Your task to perform on an android device: Go to Android settings Image 0: 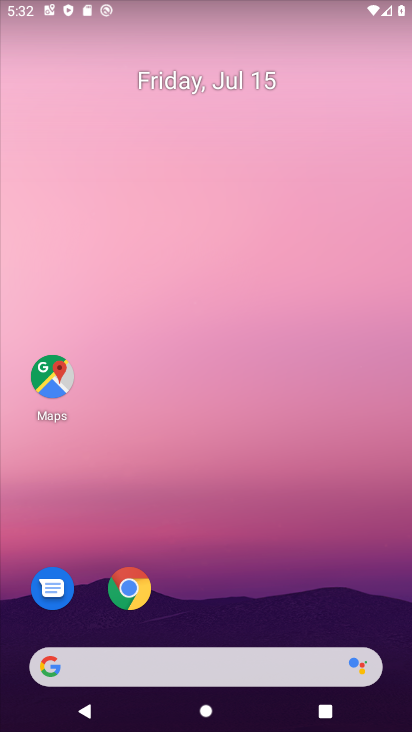
Step 0: drag from (325, 684) to (338, 57)
Your task to perform on an android device: Go to Android settings Image 1: 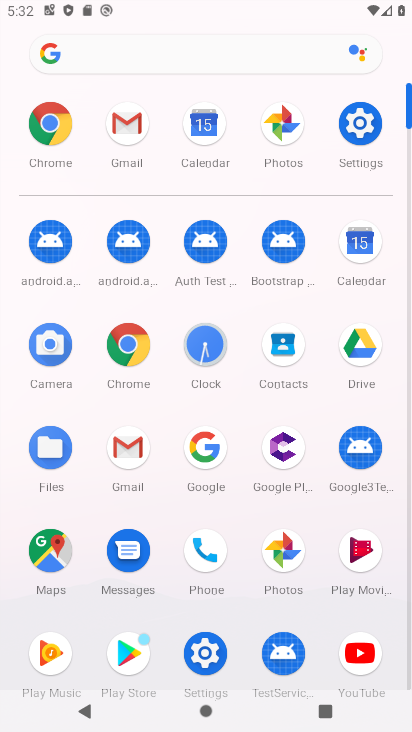
Step 1: click (345, 121)
Your task to perform on an android device: Go to Android settings Image 2: 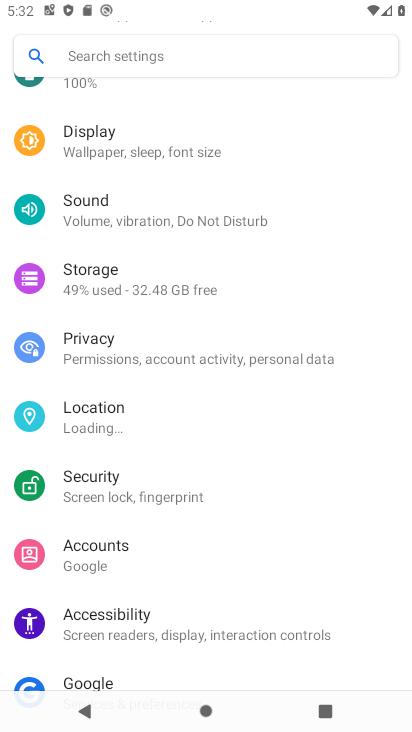
Step 2: drag from (175, 651) to (247, 125)
Your task to perform on an android device: Go to Android settings Image 3: 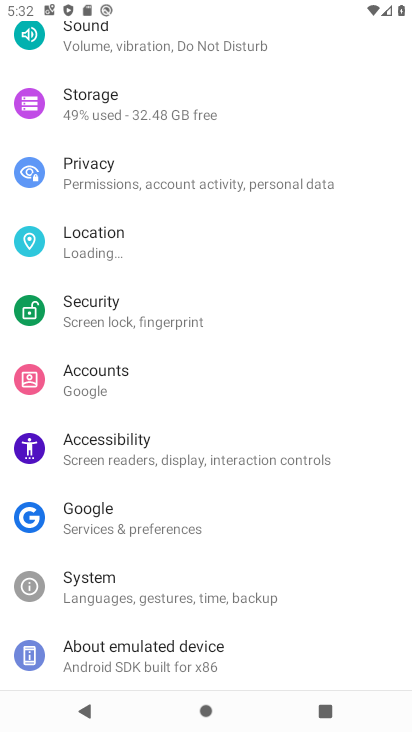
Step 3: click (222, 655)
Your task to perform on an android device: Go to Android settings Image 4: 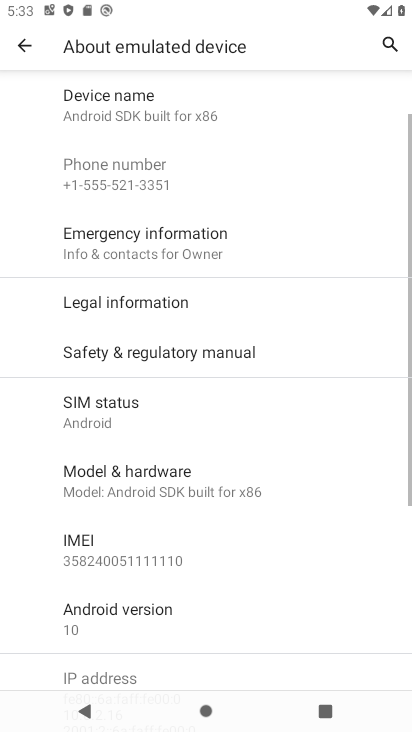
Step 4: task complete